Your task to perform on an android device: What's on my calendar tomorrow? Image 0: 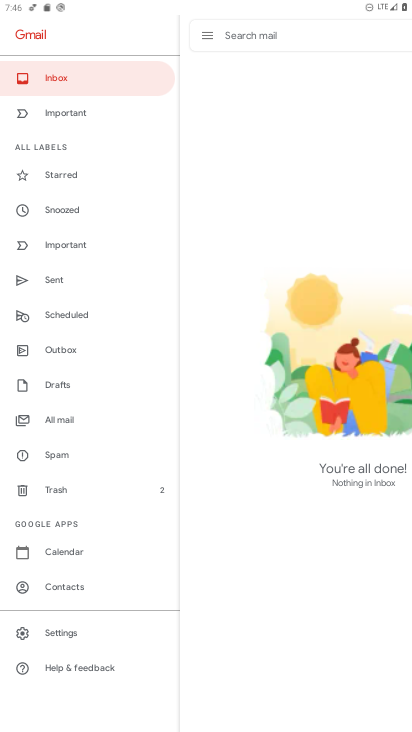
Step 0: press home button
Your task to perform on an android device: What's on my calendar tomorrow? Image 1: 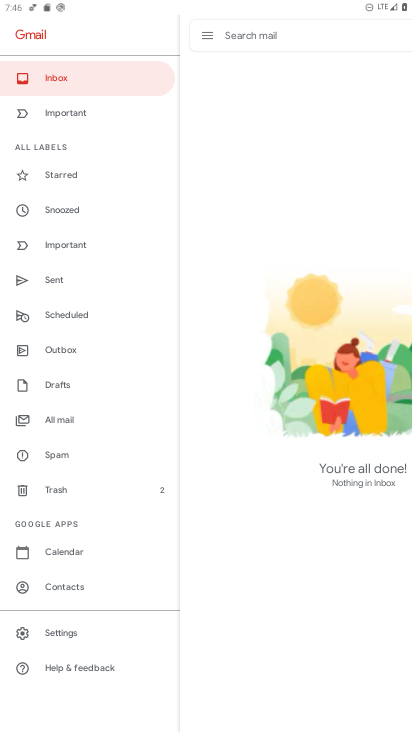
Step 1: press home button
Your task to perform on an android device: What's on my calendar tomorrow? Image 2: 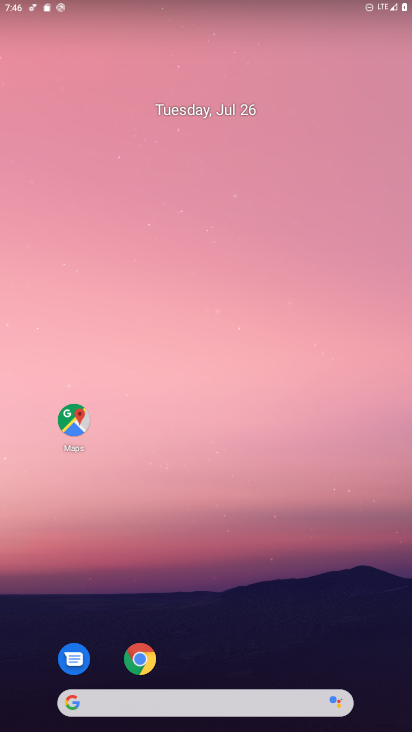
Step 2: drag from (176, 654) to (241, 355)
Your task to perform on an android device: What's on my calendar tomorrow? Image 3: 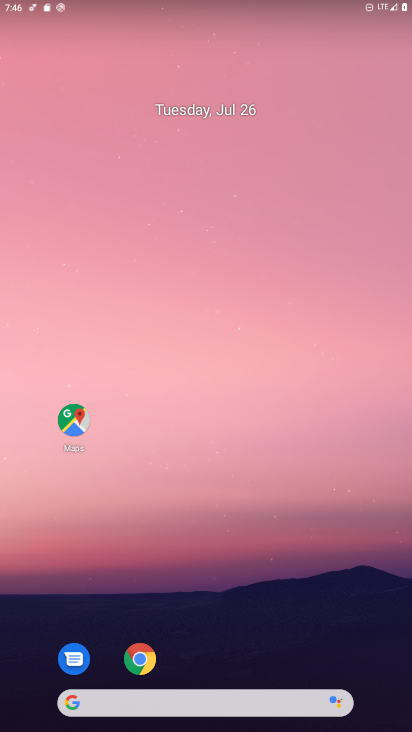
Step 3: drag from (171, 655) to (262, 223)
Your task to perform on an android device: What's on my calendar tomorrow? Image 4: 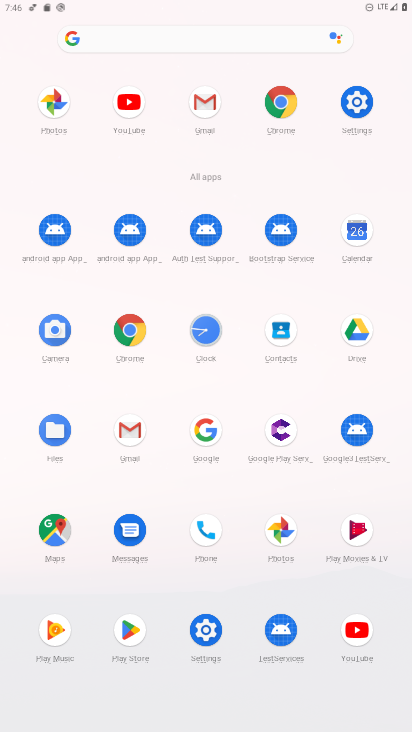
Step 4: click (359, 240)
Your task to perform on an android device: What's on my calendar tomorrow? Image 5: 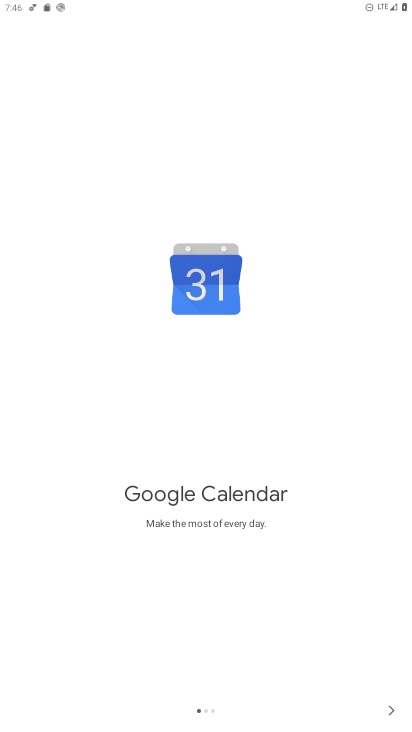
Step 5: drag from (219, 516) to (250, 352)
Your task to perform on an android device: What's on my calendar tomorrow? Image 6: 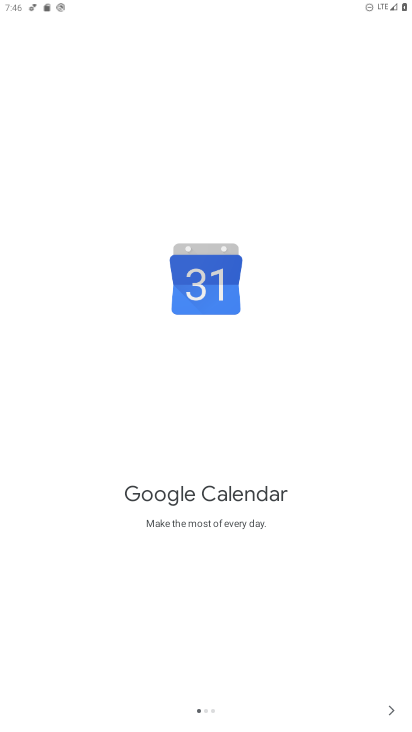
Step 6: click (387, 707)
Your task to perform on an android device: What's on my calendar tomorrow? Image 7: 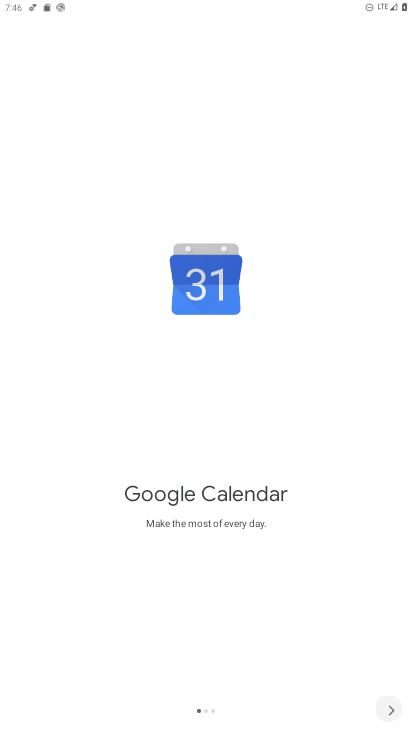
Step 7: click (388, 703)
Your task to perform on an android device: What's on my calendar tomorrow? Image 8: 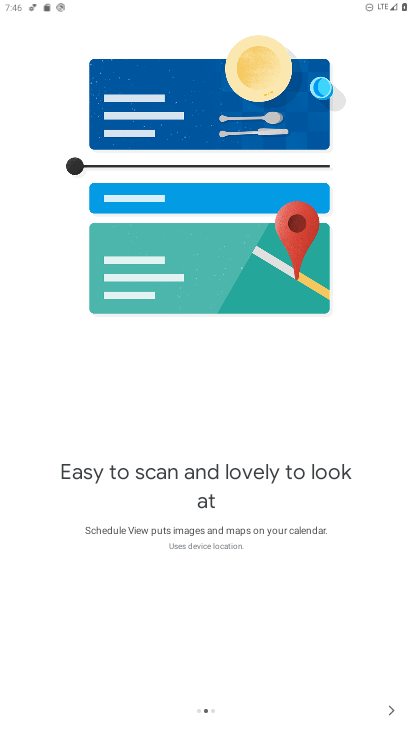
Step 8: click (389, 702)
Your task to perform on an android device: What's on my calendar tomorrow? Image 9: 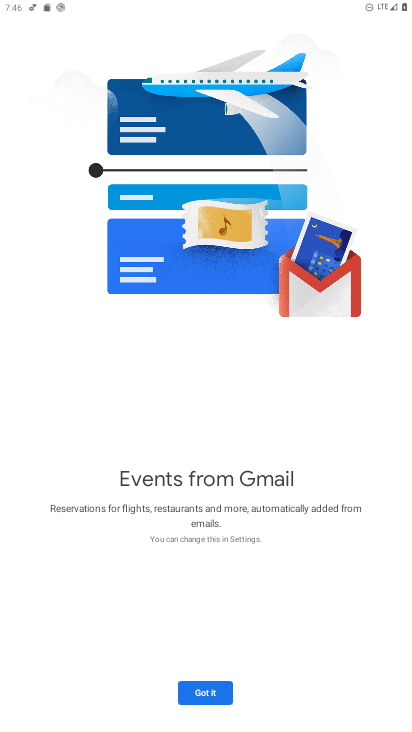
Step 9: click (214, 687)
Your task to perform on an android device: What's on my calendar tomorrow? Image 10: 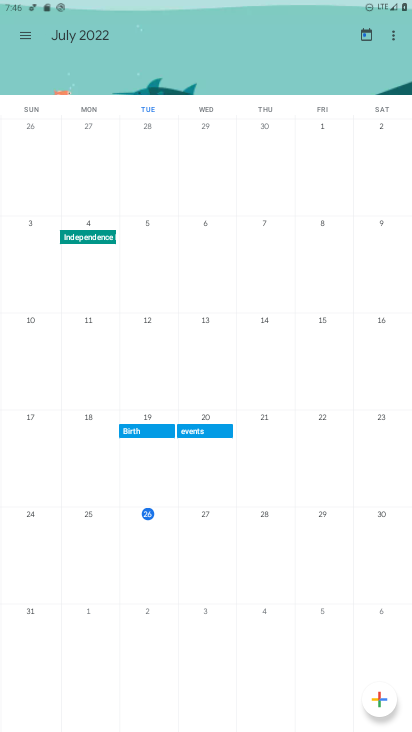
Step 10: click (203, 511)
Your task to perform on an android device: What's on my calendar tomorrow? Image 11: 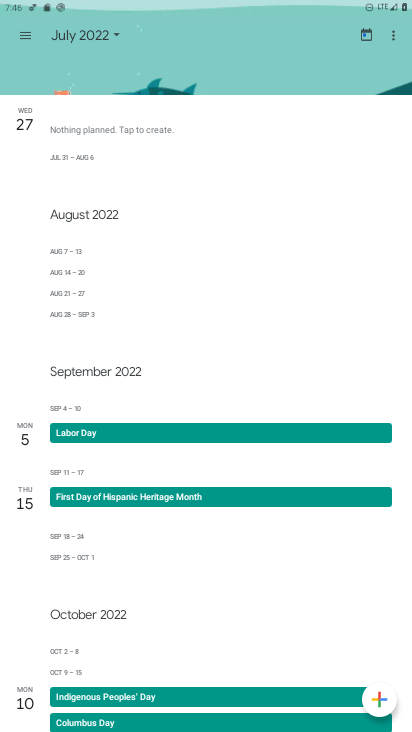
Step 11: task complete